Your task to perform on an android device: Go to Amazon Image 0: 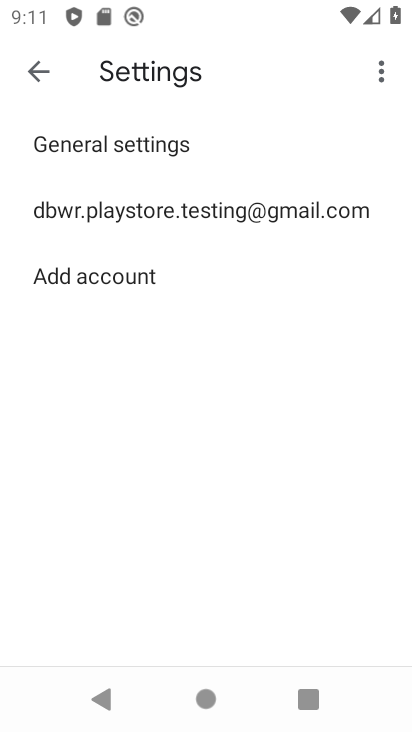
Step 0: press home button
Your task to perform on an android device: Go to Amazon Image 1: 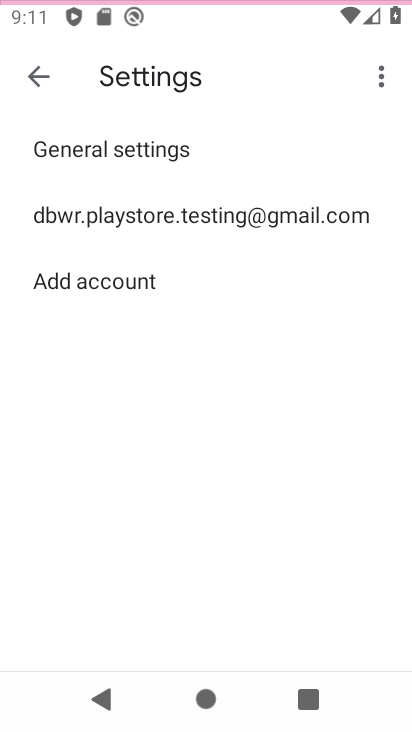
Step 1: press home button
Your task to perform on an android device: Go to Amazon Image 2: 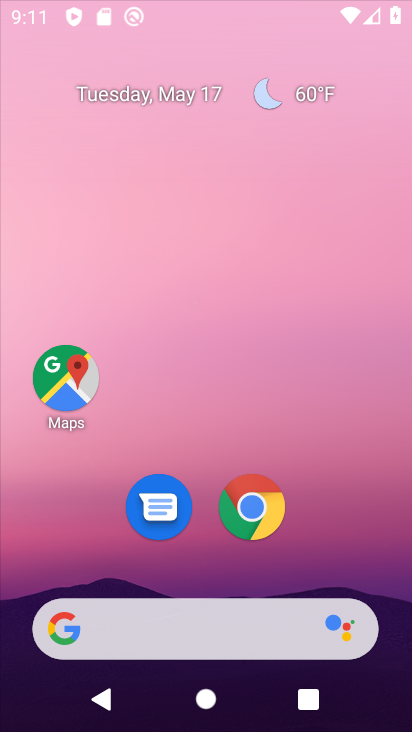
Step 2: press home button
Your task to perform on an android device: Go to Amazon Image 3: 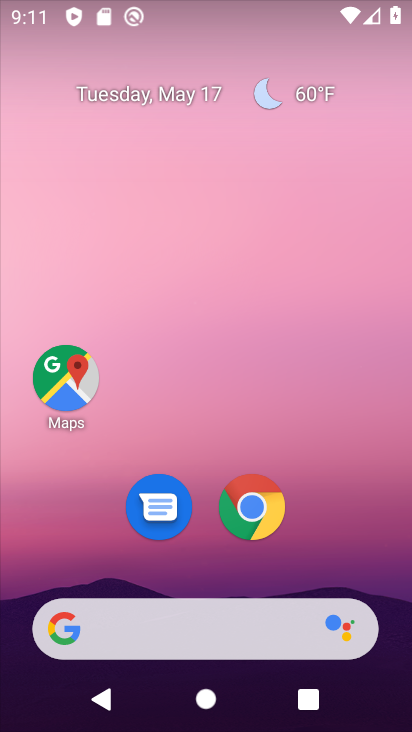
Step 3: press back button
Your task to perform on an android device: Go to Amazon Image 4: 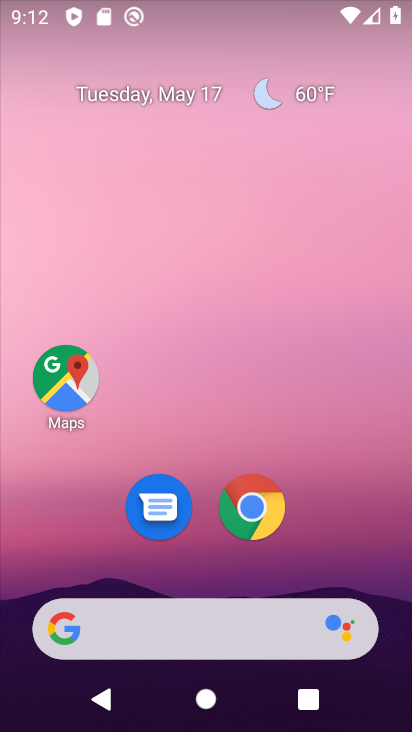
Step 4: drag from (239, 707) to (221, 200)
Your task to perform on an android device: Go to Amazon Image 5: 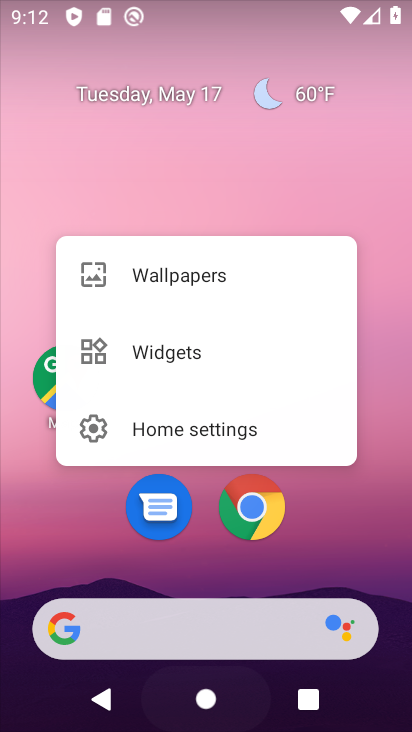
Step 5: drag from (255, 494) to (266, 61)
Your task to perform on an android device: Go to Amazon Image 6: 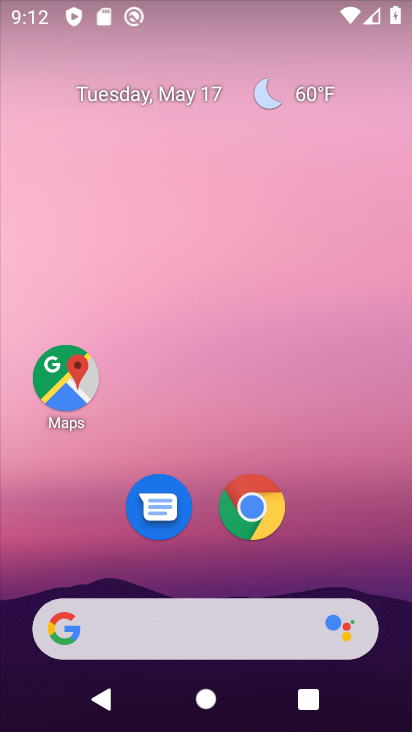
Step 6: drag from (266, 481) to (254, 6)
Your task to perform on an android device: Go to Amazon Image 7: 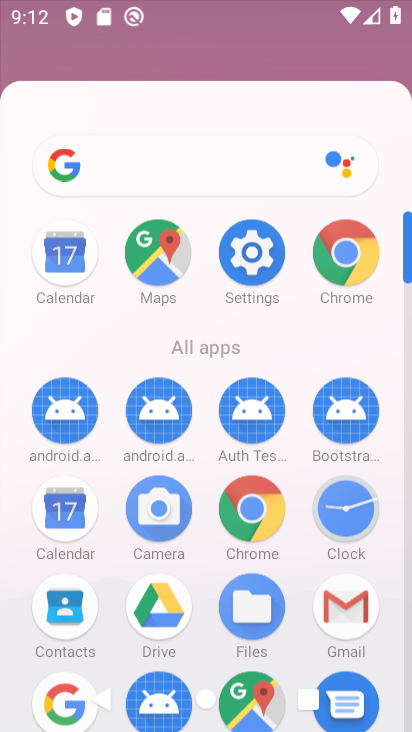
Step 7: drag from (222, 642) to (170, 113)
Your task to perform on an android device: Go to Amazon Image 8: 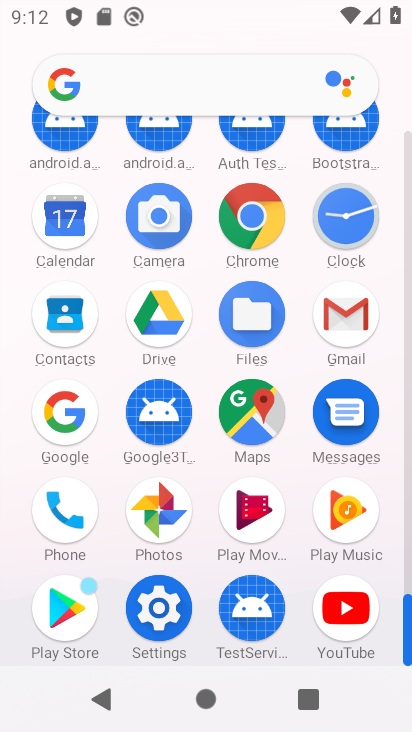
Step 8: click (245, 215)
Your task to perform on an android device: Go to Amazon Image 9: 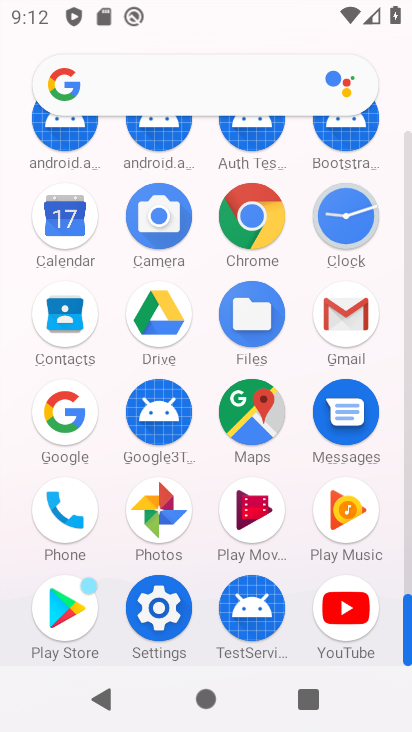
Step 9: click (245, 215)
Your task to perform on an android device: Go to Amazon Image 10: 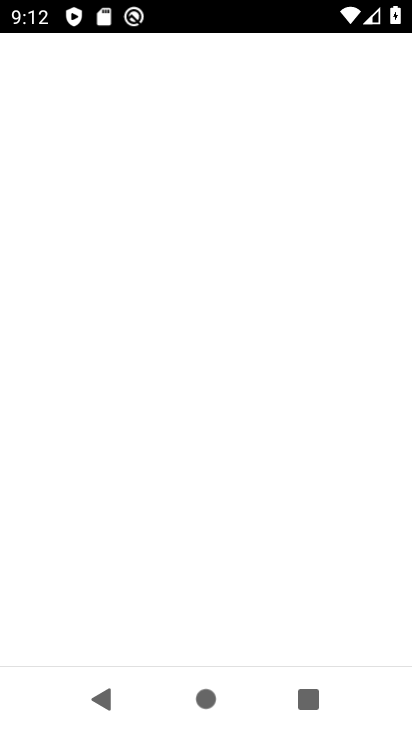
Step 10: click (245, 215)
Your task to perform on an android device: Go to Amazon Image 11: 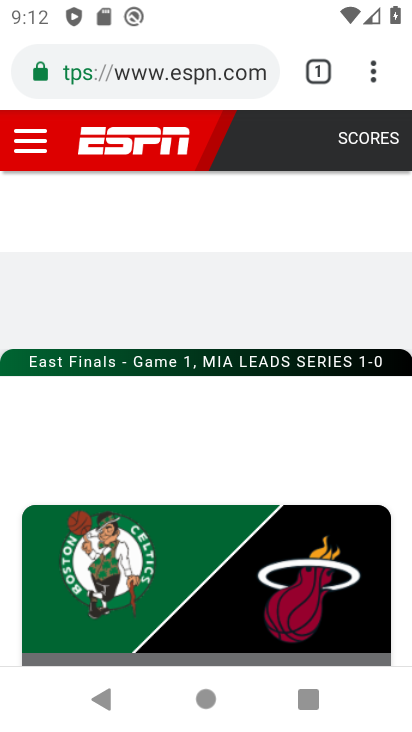
Step 11: click (373, 77)
Your task to perform on an android device: Go to Amazon Image 12: 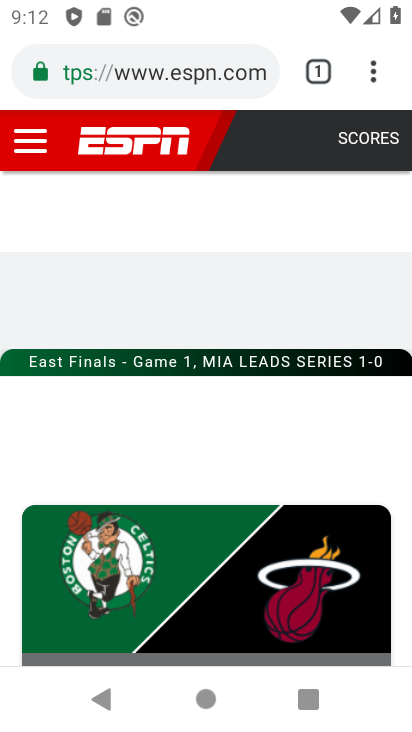
Step 12: drag from (370, 76) to (111, 131)
Your task to perform on an android device: Go to Amazon Image 13: 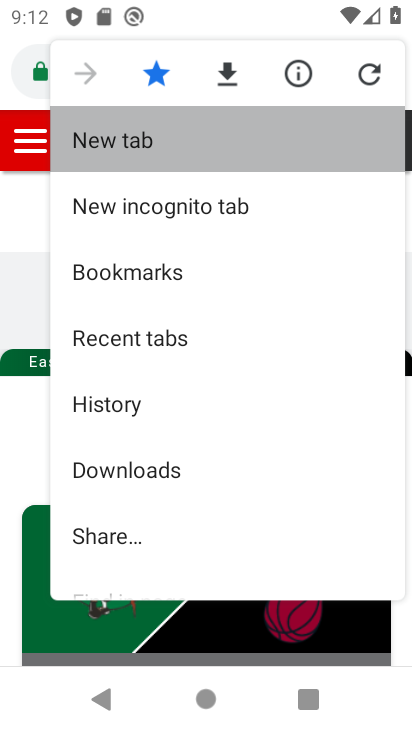
Step 13: click (111, 135)
Your task to perform on an android device: Go to Amazon Image 14: 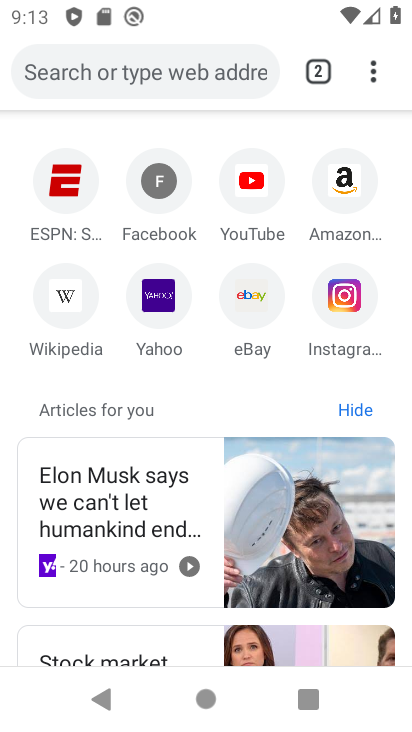
Step 14: click (348, 178)
Your task to perform on an android device: Go to Amazon Image 15: 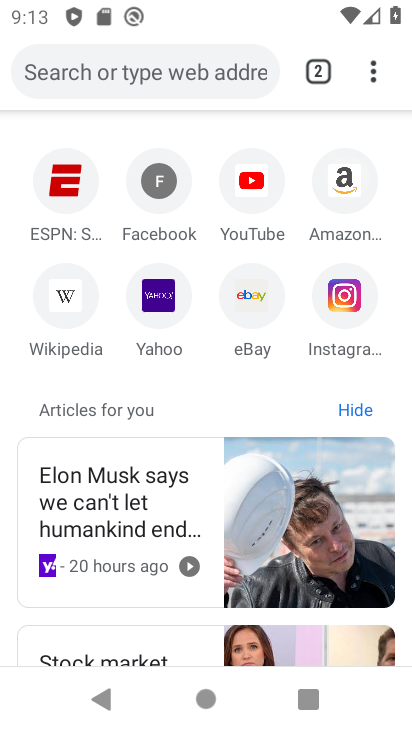
Step 15: click (348, 178)
Your task to perform on an android device: Go to Amazon Image 16: 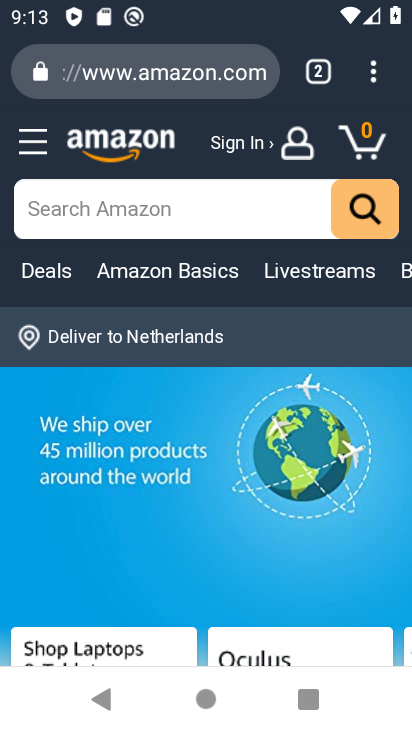
Step 16: task complete